Your task to perform on an android device: toggle javascript in the chrome app Image 0: 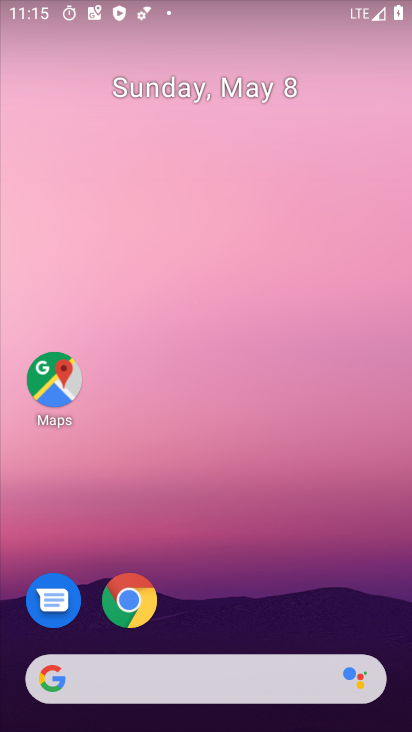
Step 0: click (128, 590)
Your task to perform on an android device: toggle javascript in the chrome app Image 1: 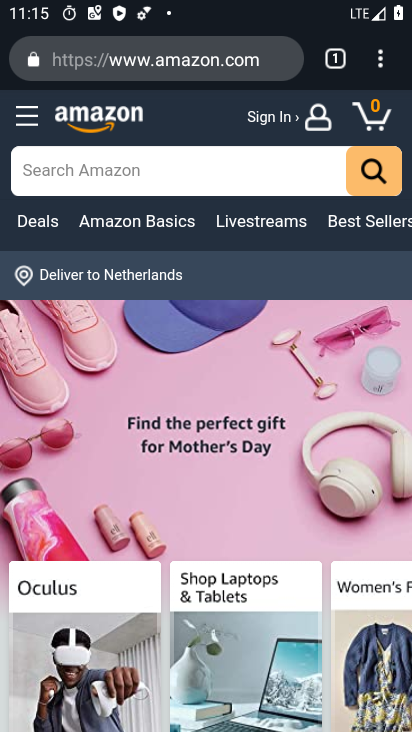
Step 1: click (380, 54)
Your task to perform on an android device: toggle javascript in the chrome app Image 2: 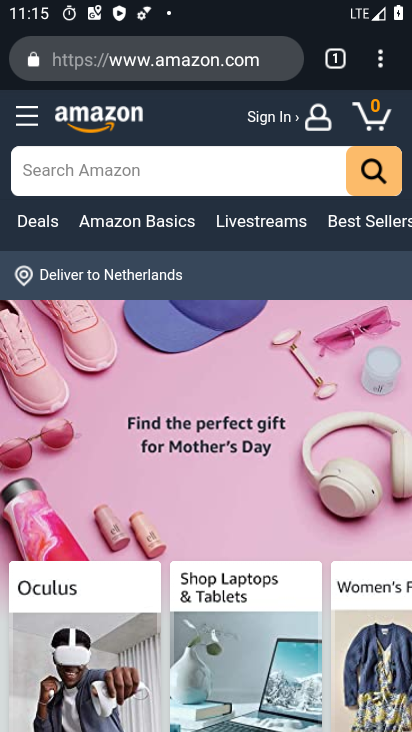
Step 2: click (380, 53)
Your task to perform on an android device: toggle javascript in the chrome app Image 3: 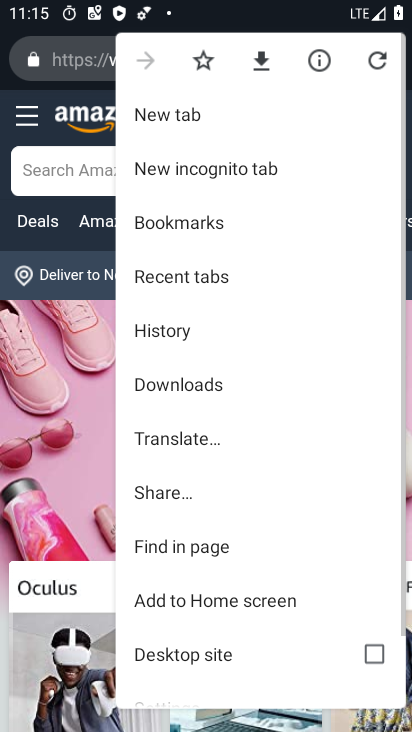
Step 3: drag from (223, 598) to (364, 193)
Your task to perform on an android device: toggle javascript in the chrome app Image 4: 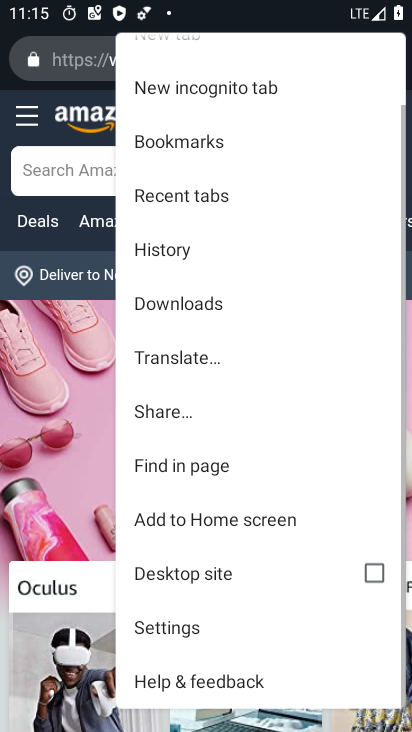
Step 4: click (174, 632)
Your task to perform on an android device: toggle javascript in the chrome app Image 5: 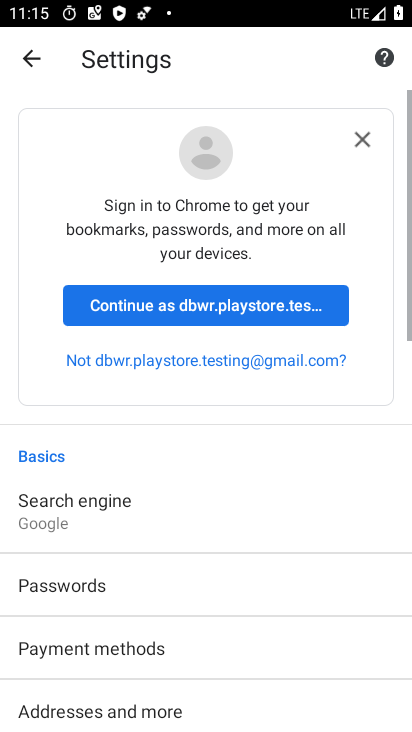
Step 5: click (276, 233)
Your task to perform on an android device: toggle javascript in the chrome app Image 6: 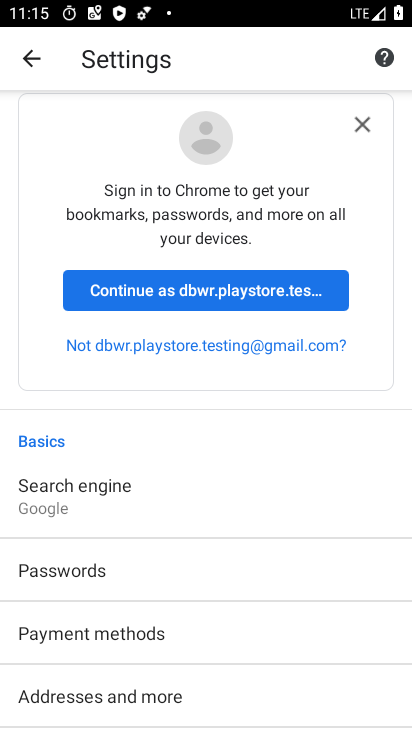
Step 6: drag from (146, 680) to (342, 204)
Your task to perform on an android device: toggle javascript in the chrome app Image 7: 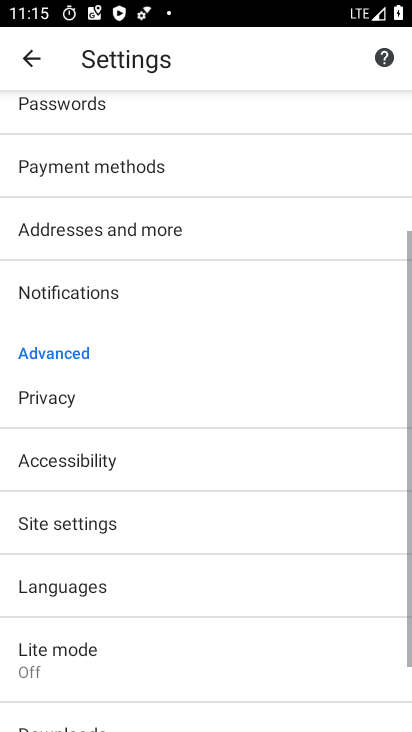
Step 7: drag from (172, 654) to (312, 241)
Your task to perform on an android device: toggle javascript in the chrome app Image 8: 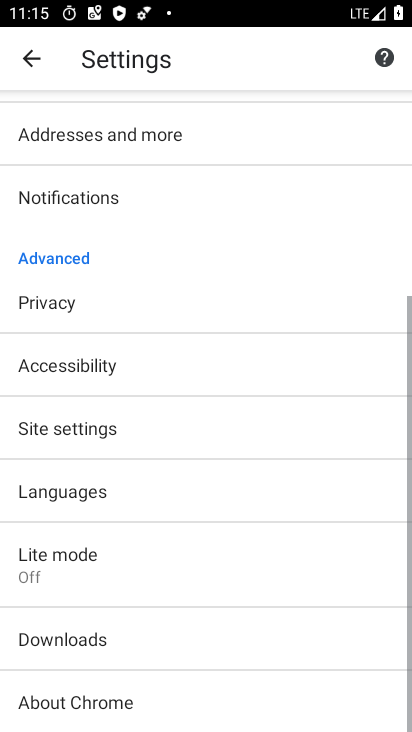
Step 8: click (43, 439)
Your task to perform on an android device: toggle javascript in the chrome app Image 9: 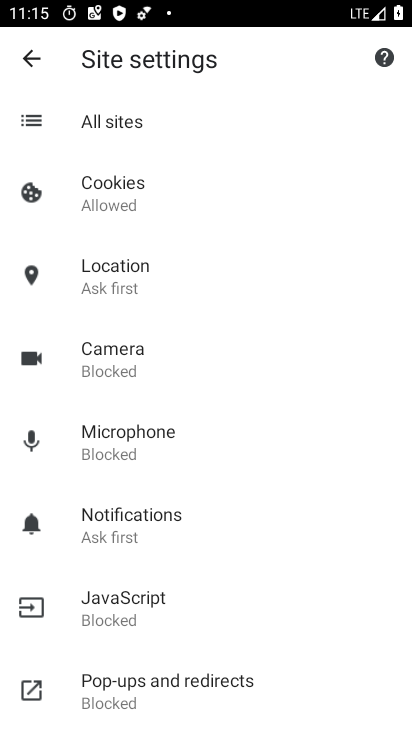
Step 9: click (190, 607)
Your task to perform on an android device: toggle javascript in the chrome app Image 10: 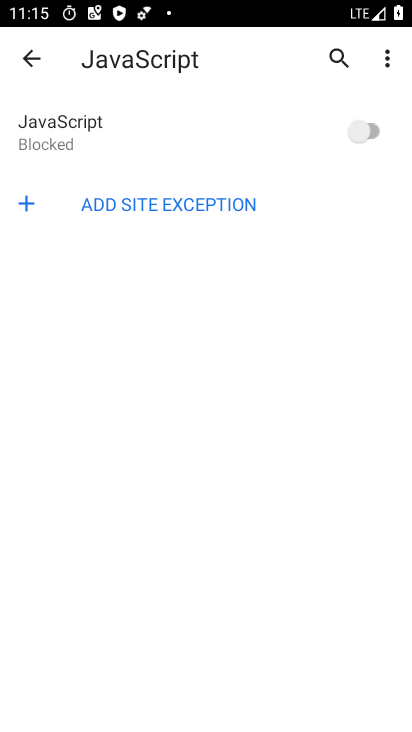
Step 10: click (359, 121)
Your task to perform on an android device: toggle javascript in the chrome app Image 11: 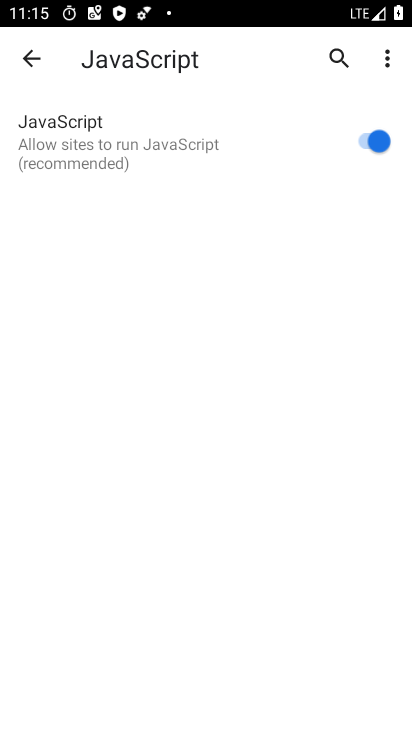
Step 11: task complete